Your task to perform on an android device: allow notifications from all sites in the chrome app Image 0: 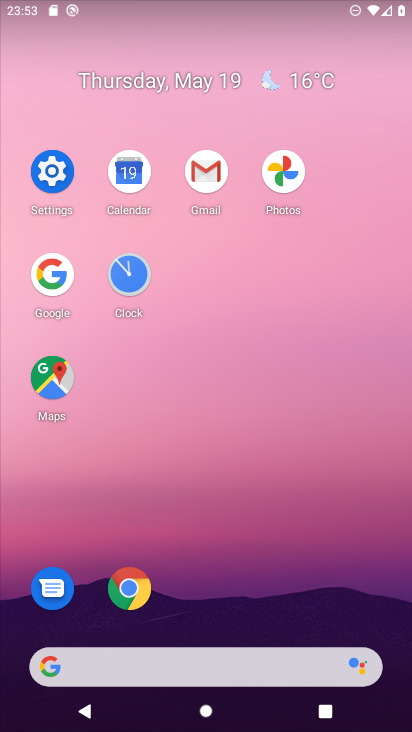
Step 0: click (124, 590)
Your task to perform on an android device: allow notifications from all sites in the chrome app Image 1: 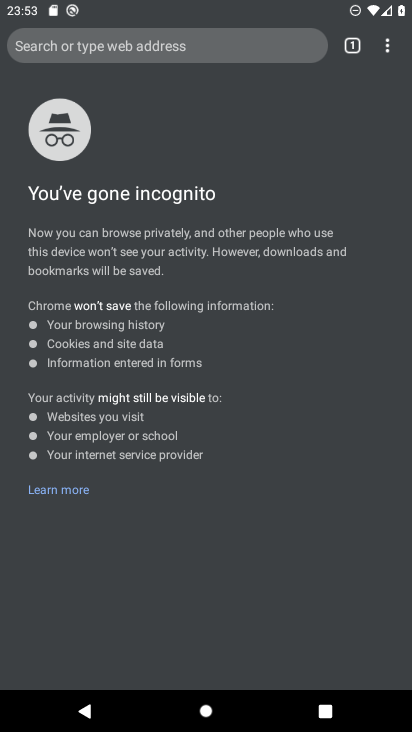
Step 1: click (401, 48)
Your task to perform on an android device: allow notifications from all sites in the chrome app Image 2: 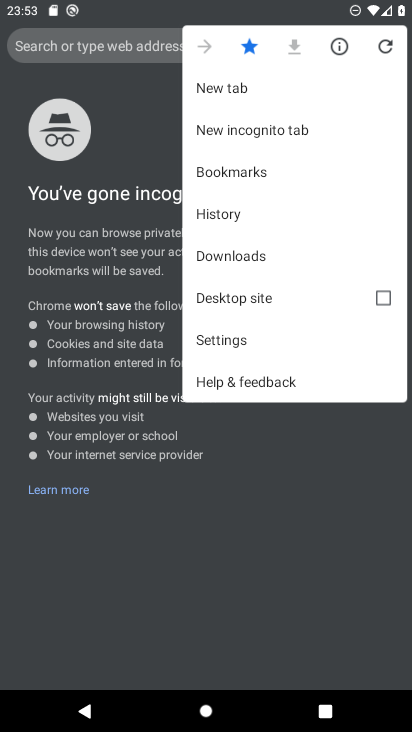
Step 2: click (252, 332)
Your task to perform on an android device: allow notifications from all sites in the chrome app Image 3: 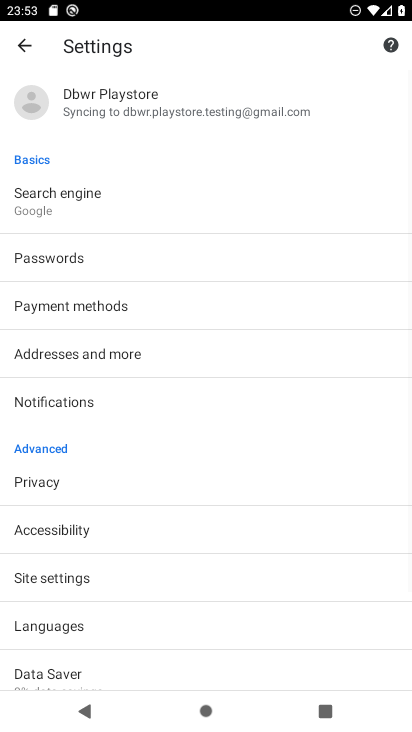
Step 3: click (86, 586)
Your task to perform on an android device: allow notifications from all sites in the chrome app Image 4: 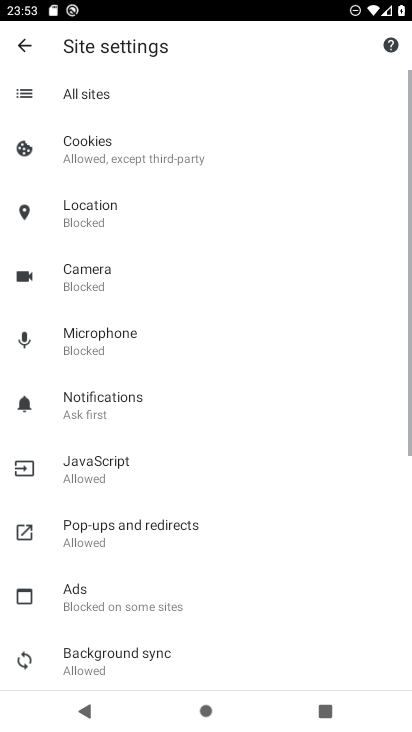
Step 4: click (299, 142)
Your task to perform on an android device: allow notifications from all sites in the chrome app Image 5: 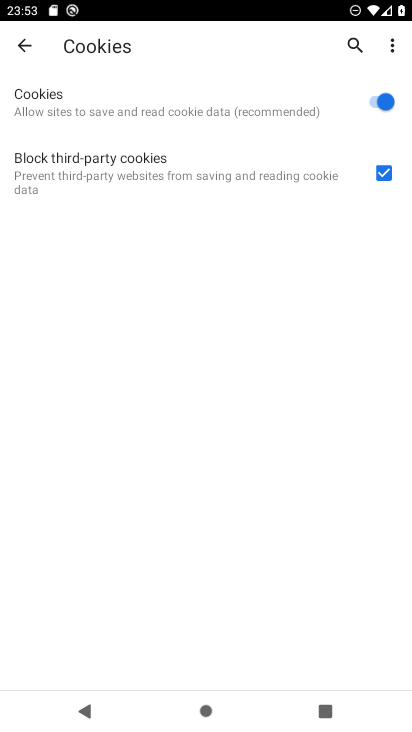
Step 5: task complete